Your task to perform on an android device: Open Amazon Image 0: 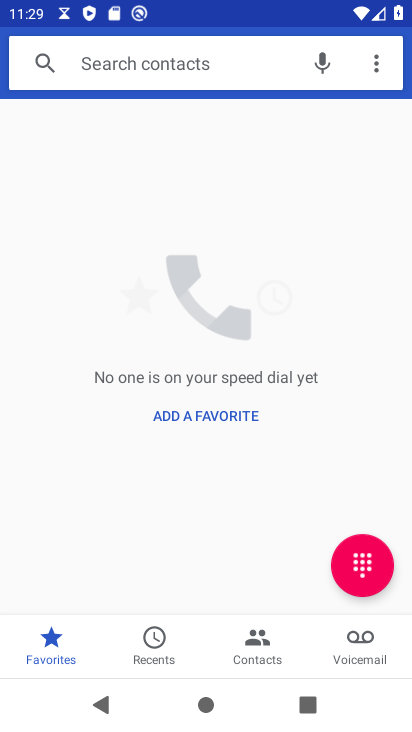
Step 0: press home button
Your task to perform on an android device: Open Amazon Image 1: 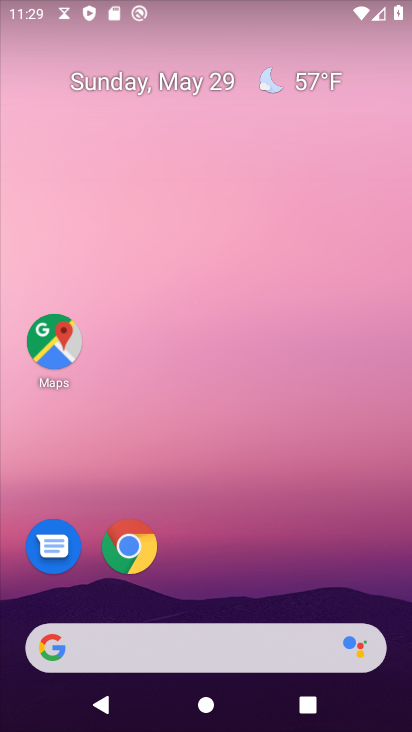
Step 1: click (138, 545)
Your task to perform on an android device: Open Amazon Image 2: 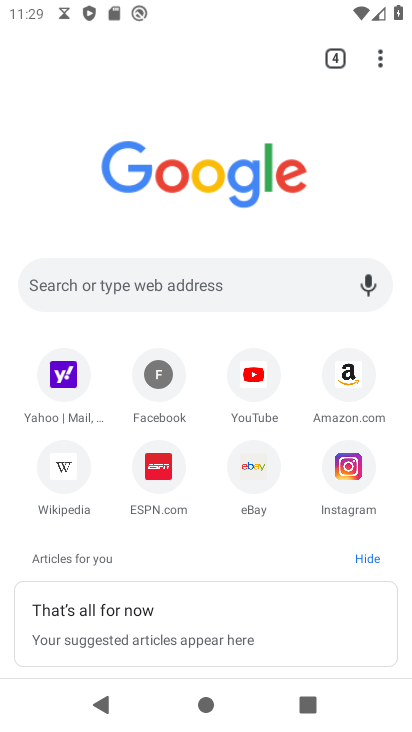
Step 2: click (350, 384)
Your task to perform on an android device: Open Amazon Image 3: 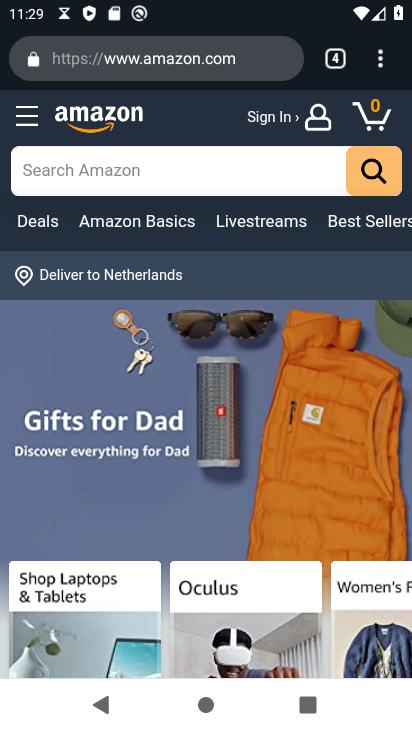
Step 3: task complete